Your task to perform on an android device: Open CNN.com Image 0: 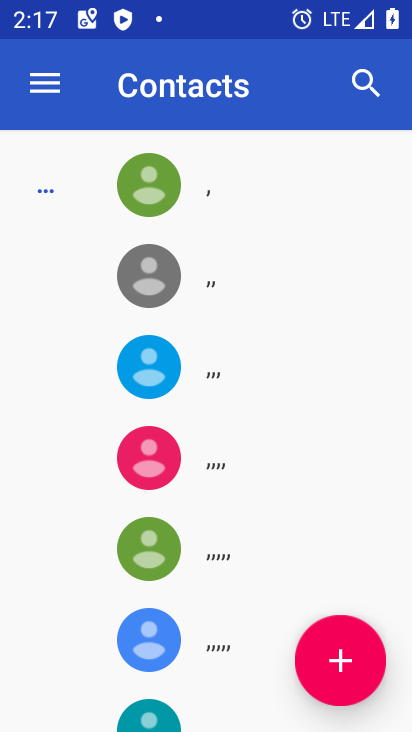
Step 0: press back button
Your task to perform on an android device: Open CNN.com Image 1: 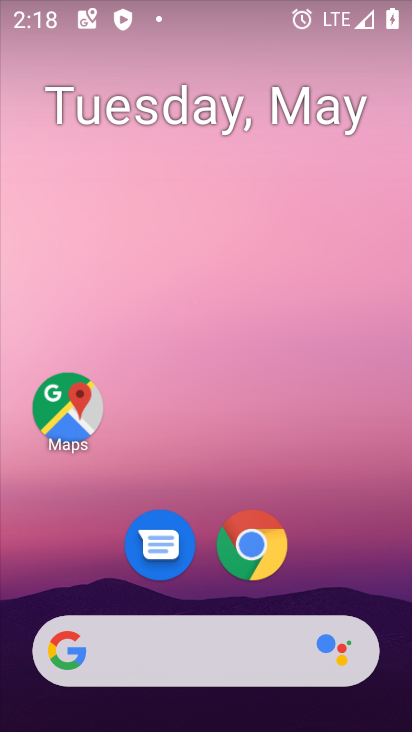
Step 1: drag from (286, 489) to (237, 53)
Your task to perform on an android device: Open CNN.com Image 2: 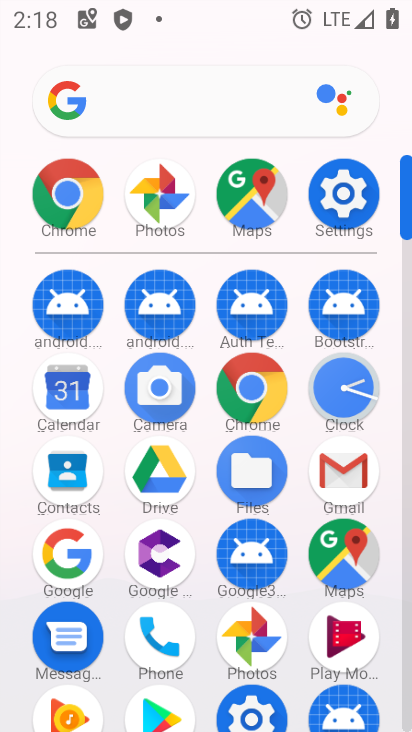
Step 2: click (256, 385)
Your task to perform on an android device: Open CNN.com Image 3: 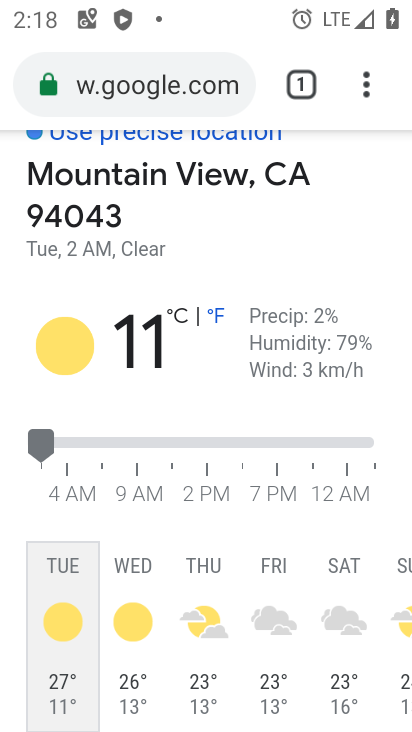
Step 3: click (162, 75)
Your task to perform on an android device: Open CNN.com Image 4: 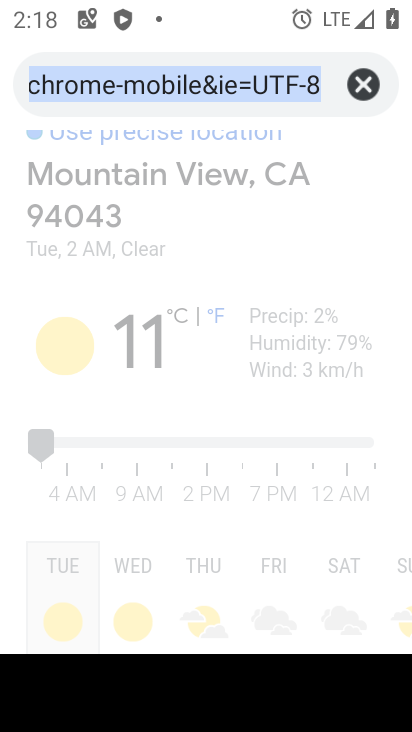
Step 4: click (366, 86)
Your task to perform on an android device: Open CNN.com Image 5: 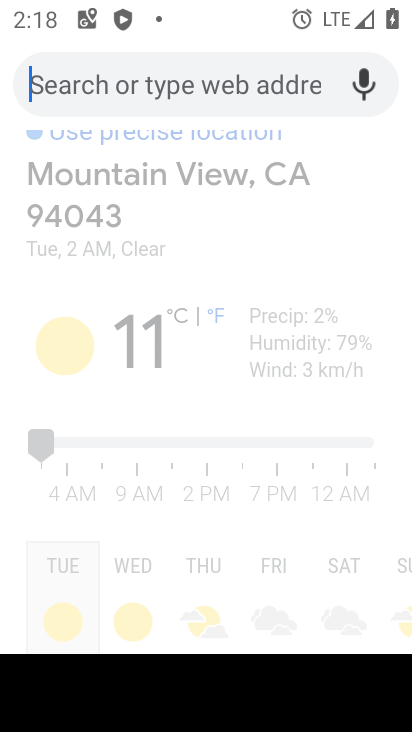
Step 5: type " CNN.com"
Your task to perform on an android device: Open CNN.com Image 6: 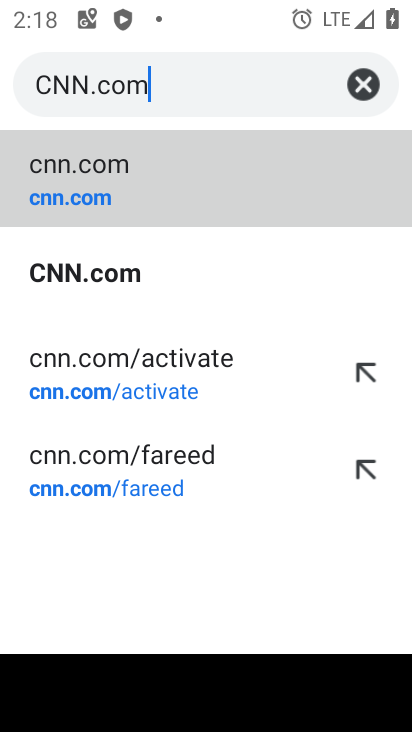
Step 6: click (152, 170)
Your task to perform on an android device: Open CNN.com Image 7: 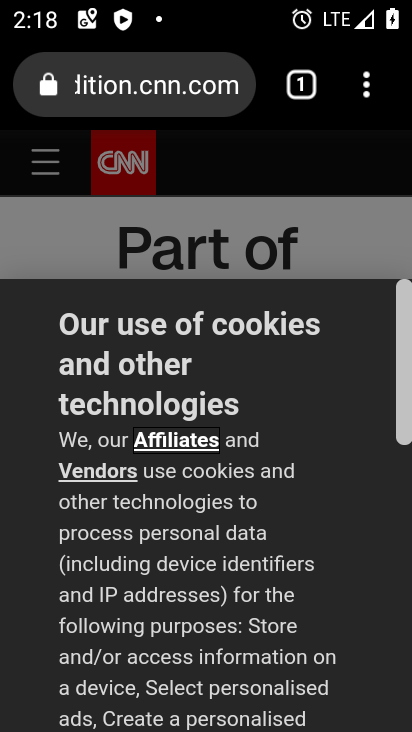
Step 7: task complete